Your task to perform on an android device: Open Chrome and go to the settings page Image 0: 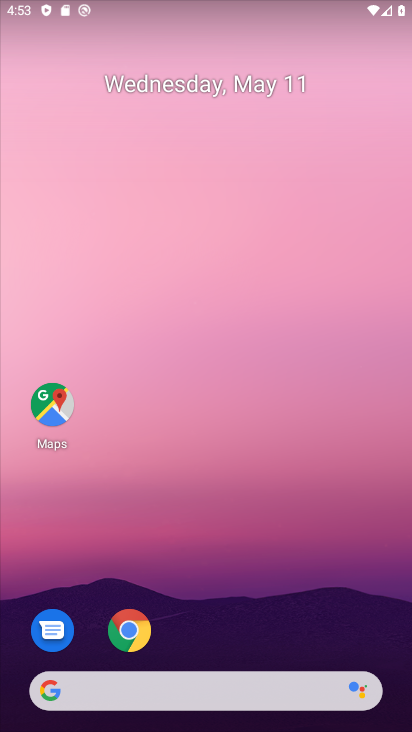
Step 0: click (130, 632)
Your task to perform on an android device: Open Chrome and go to the settings page Image 1: 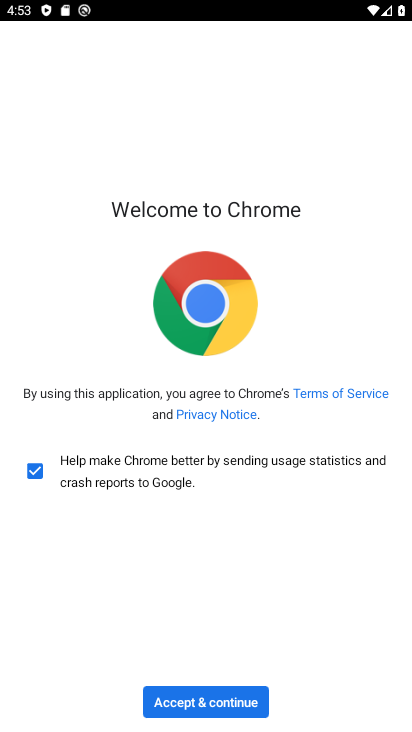
Step 1: click (173, 702)
Your task to perform on an android device: Open Chrome and go to the settings page Image 2: 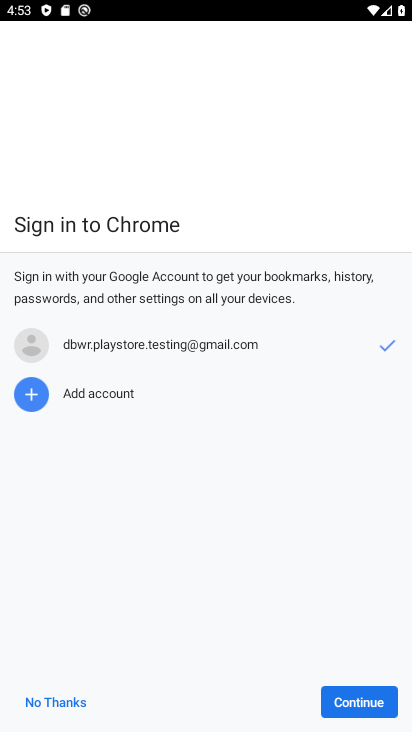
Step 2: click (346, 701)
Your task to perform on an android device: Open Chrome and go to the settings page Image 3: 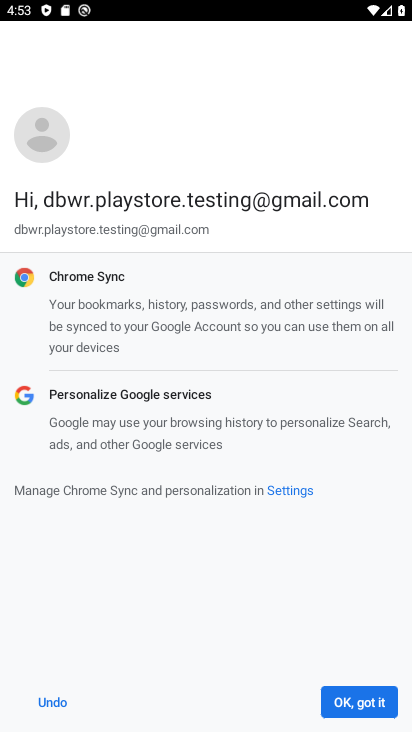
Step 3: click (356, 705)
Your task to perform on an android device: Open Chrome and go to the settings page Image 4: 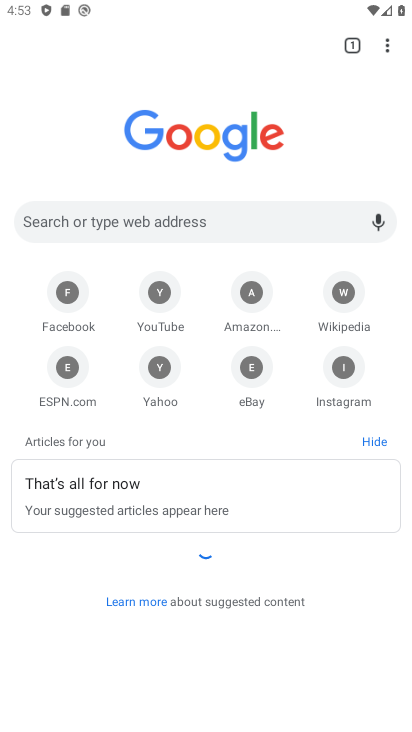
Step 4: task complete